Your task to perform on an android device: Open CNN.com Image 0: 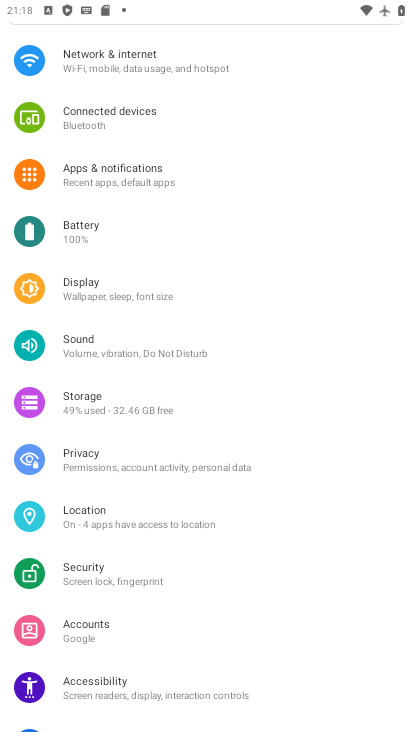
Step 0: press home button
Your task to perform on an android device: Open CNN.com Image 1: 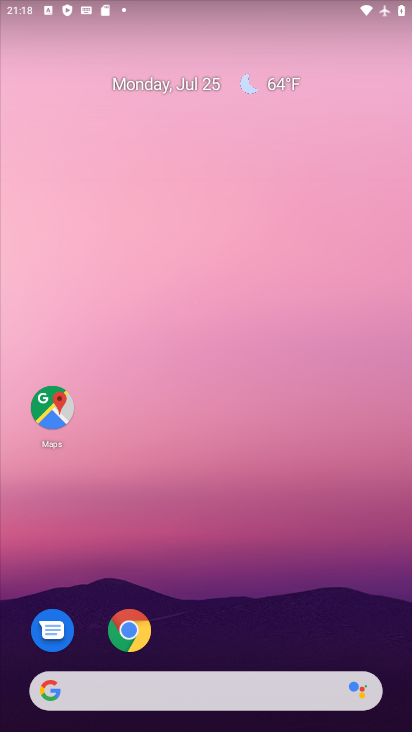
Step 1: click (128, 630)
Your task to perform on an android device: Open CNN.com Image 2: 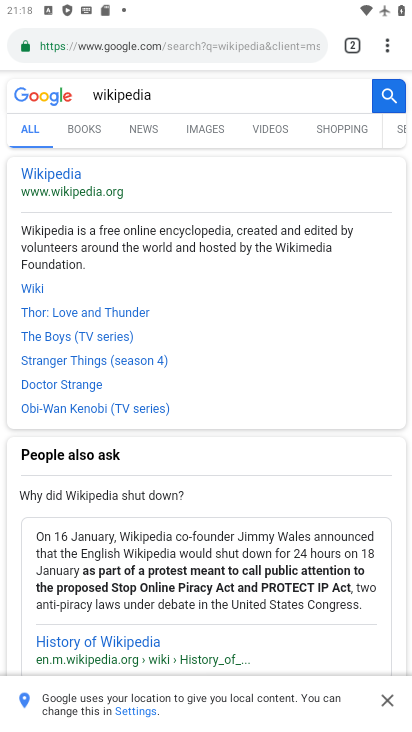
Step 2: click (183, 97)
Your task to perform on an android device: Open CNN.com Image 3: 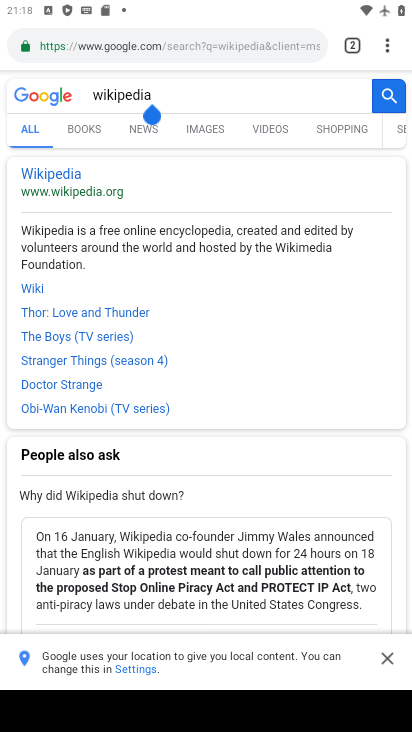
Step 3: click (194, 48)
Your task to perform on an android device: Open CNN.com Image 4: 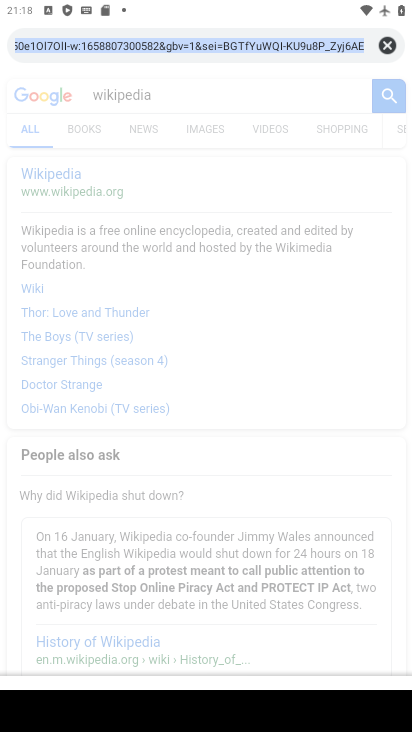
Step 4: click (381, 43)
Your task to perform on an android device: Open CNN.com Image 5: 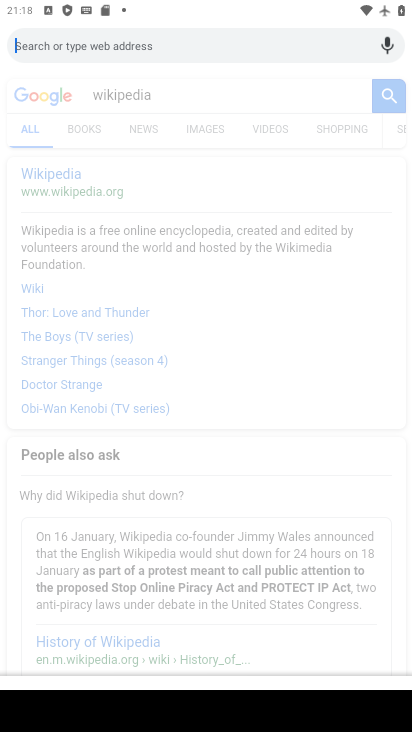
Step 5: type "cnn.com"
Your task to perform on an android device: Open CNN.com Image 6: 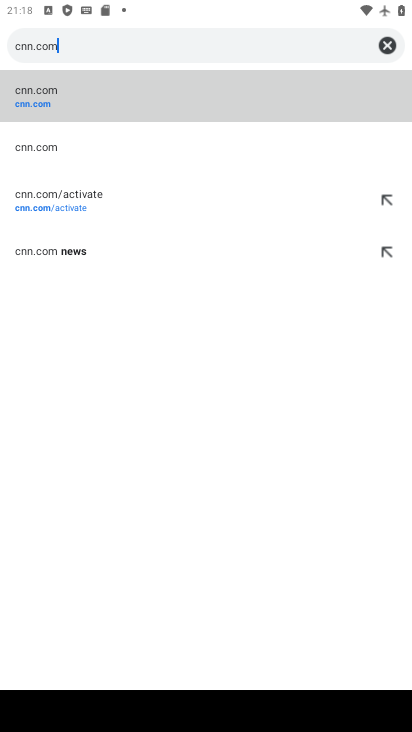
Step 6: click (51, 84)
Your task to perform on an android device: Open CNN.com Image 7: 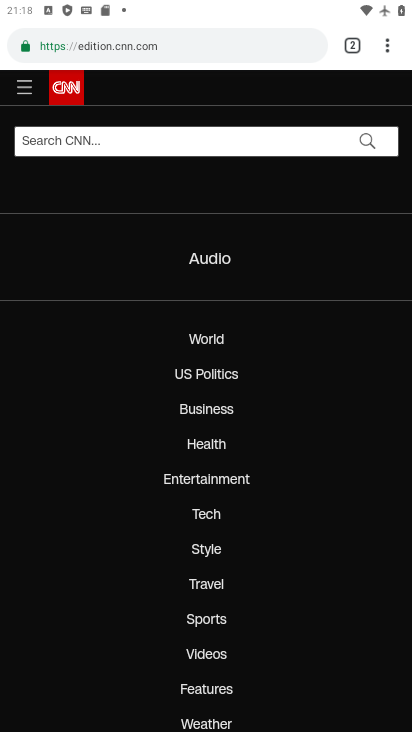
Step 7: task complete